Your task to perform on an android device: open a new tab in the chrome app Image 0: 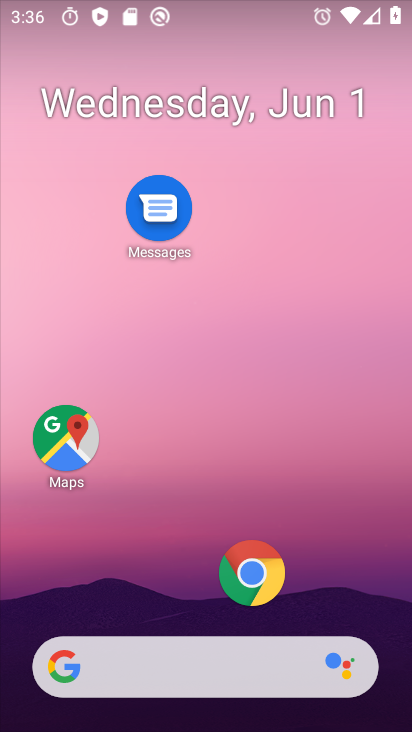
Step 0: click (245, 584)
Your task to perform on an android device: open a new tab in the chrome app Image 1: 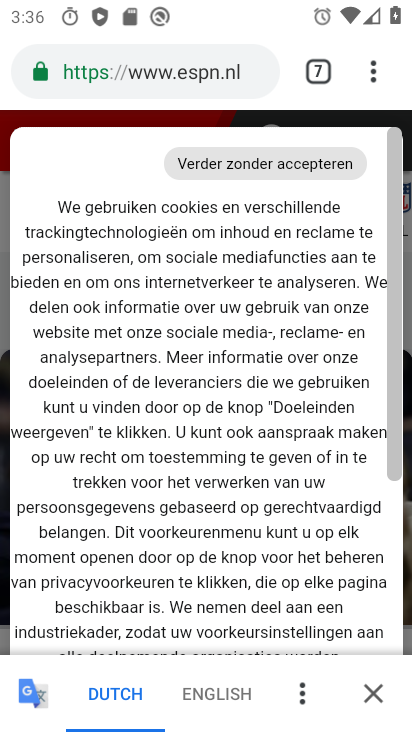
Step 1: click (317, 88)
Your task to perform on an android device: open a new tab in the chrome app Image 2: 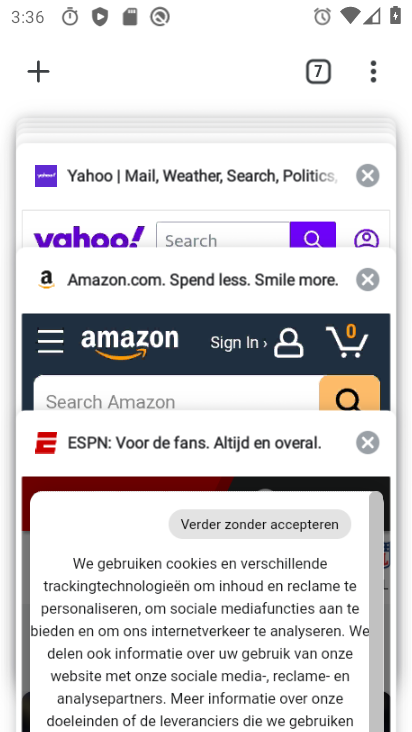
Step 2: click (41, 69)
Your task to perform on an android device: open a new tab in the chrome app Image 3: 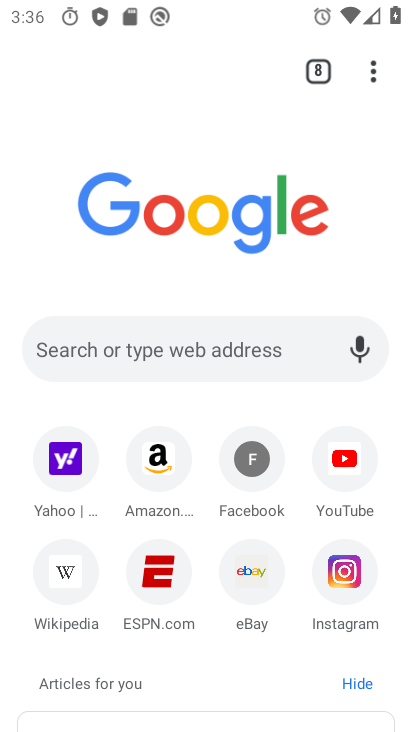
Step 3: task complete